Your task to perform on an android device: turn pop-ups off in chrome Image 0: 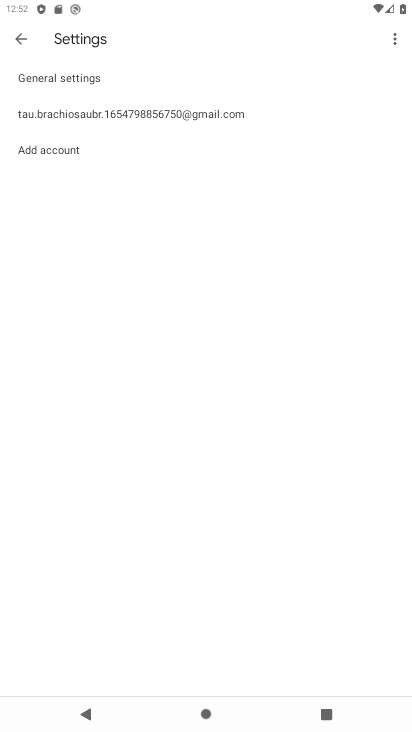
Step 0: press home button
Your task to perform on an android device: turn pop-ups off in chrome Image 1: 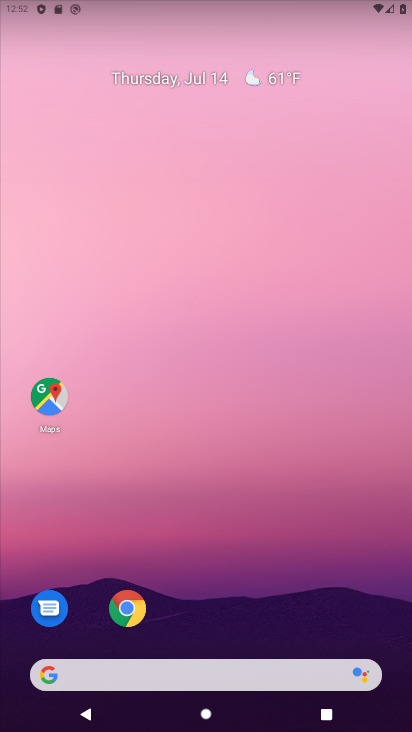
Step 1: drag from (313, 612) to (310, 175)
Your task to perform on an android device: turn pop-ups off in chrome Image 2: 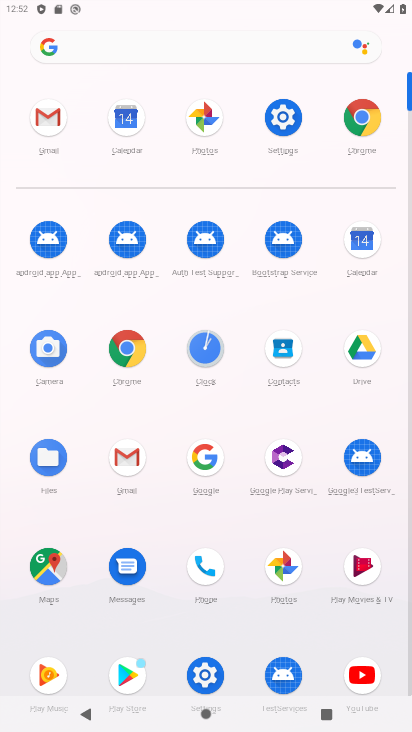
Step 2: click (362, 126)
Your task to perform on an android device: turn pop-ups off in chrome Image 3: 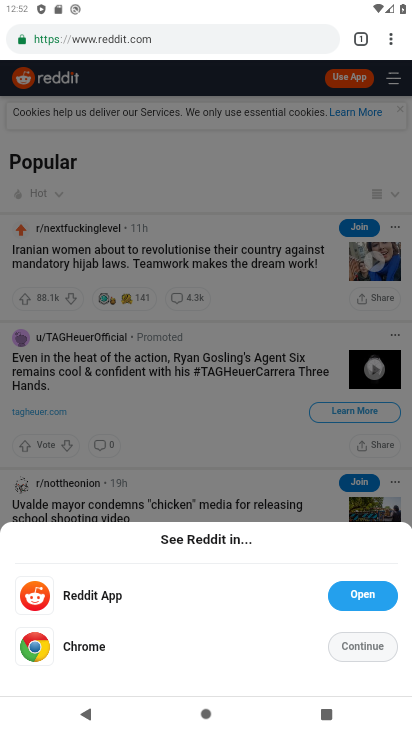
Step 3: click (389, 43)
Your task to perform on an android device: turn pop-ups off in chrome Image 4: 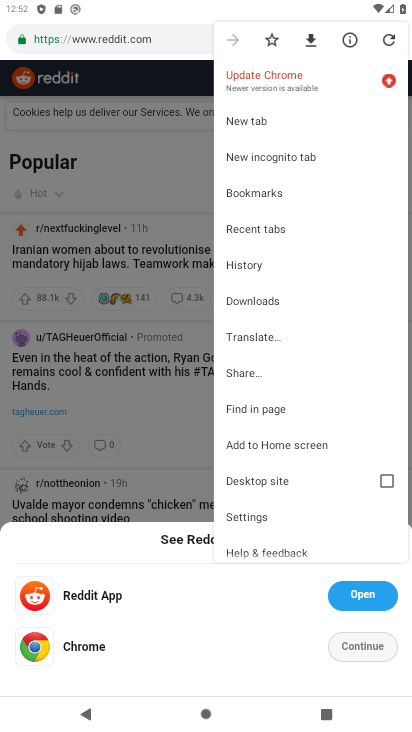
Step 4: drag from (345, 411) to (346, 330)
Your task to perform on an android device: turn pop-ups off in chrome Image 5: 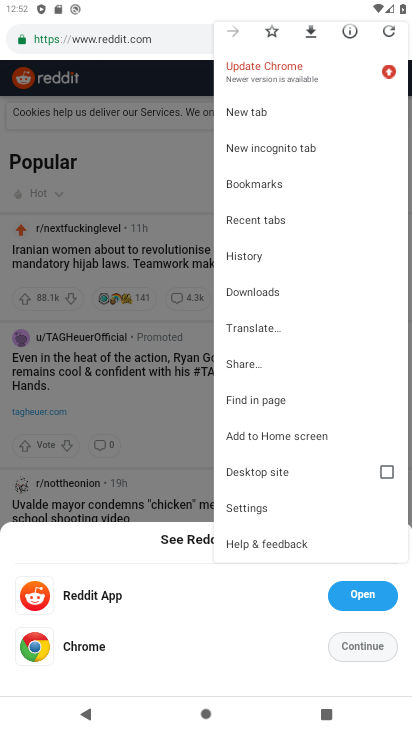
Step 5: click (260, 507)
Your task to perform on an android device: turn pop-ups off in chrome Image 6: 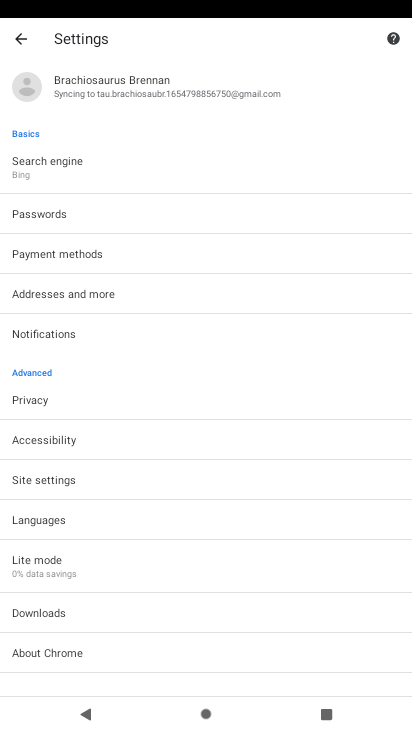
Step 6: drag from (312, 503) to (315, 408)
Your task to perform on an android device: turn pop-ups off in chrome Image 7: 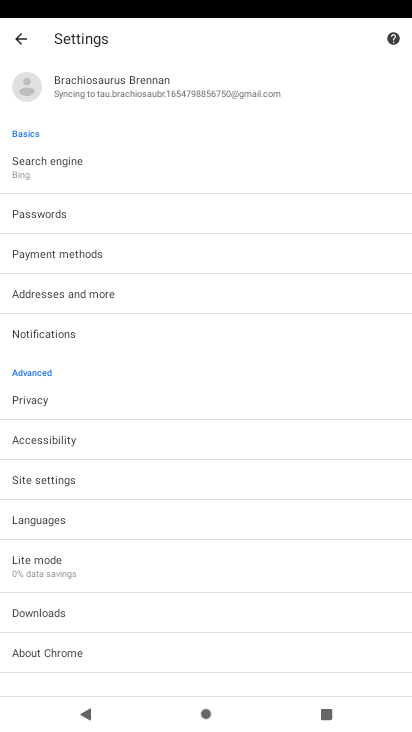
Step 7: drag from (311, 508) to (312, 406)
Your task to perform on an android device: turn pop-ups off in chrome Image 8: 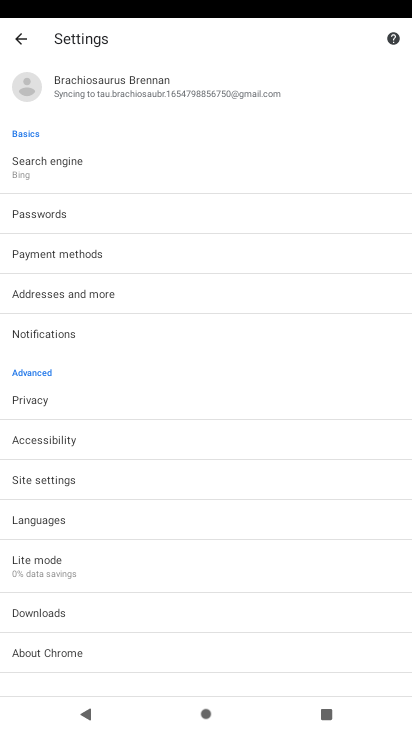
Step 8: drag from (316, 501) to (313, 420)
Your task to perform on an android device: turn pop-ups off in chrome Image 9: 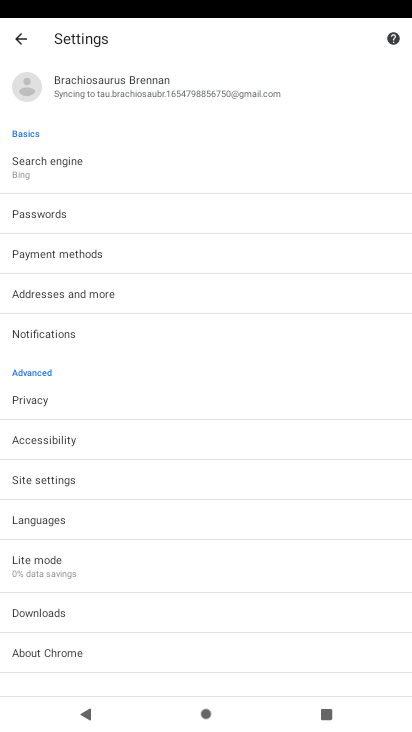
Step 9: click (193, 469)
Your task to perform on an android device: turn pop-ups off in chrome Image 10: 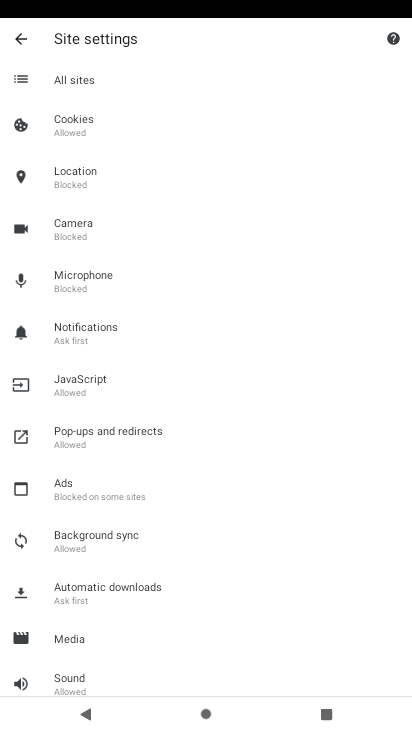
Step 10: click (187, 436)
Your task to perform on an android device: turn pop-ups off in chrome Image 11: 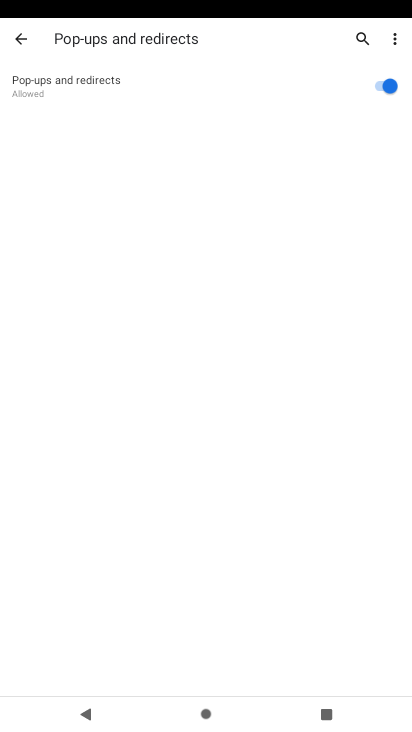
Step 11: click (389, 86)
Your task to perform on an android device: turn pop-ups off in chrome Image 12: 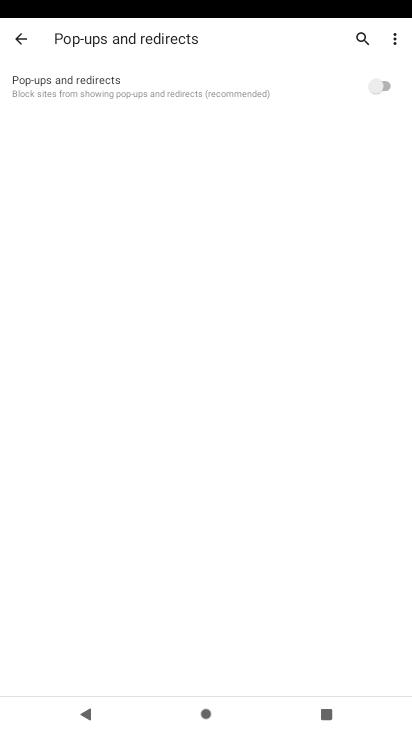
Step 12: task complete